Your task to perform on an android device: Search for pizza restaurants on Maps Image 0: 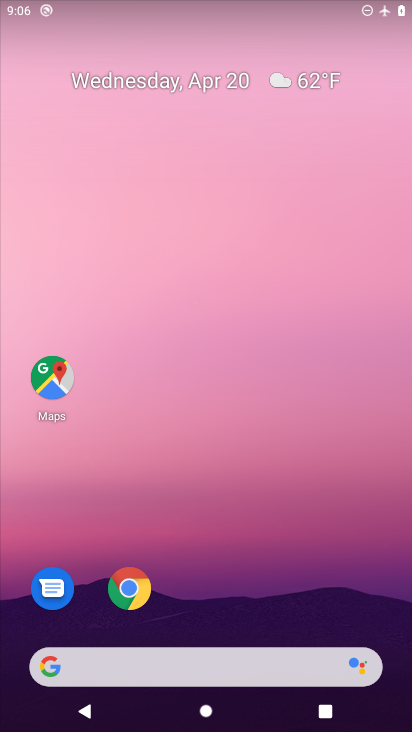
Step 0: drag from (207, 563) to (210, 99)
Your task to perform on an android device: Search for pizza restaurants on Maps Image 1: 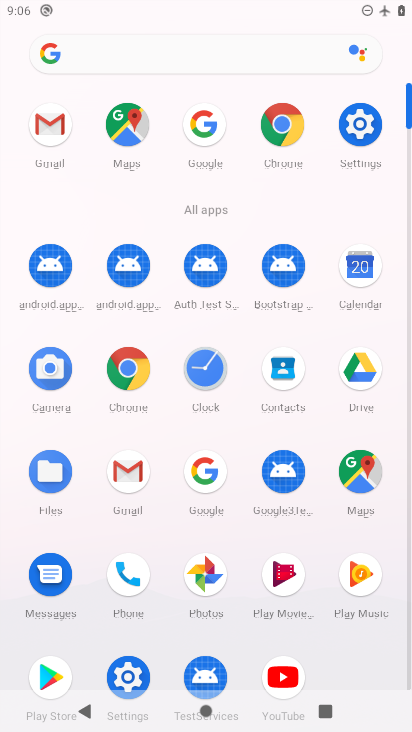
Step 1: click (363, 468)
Your task to perform on an android device: Search for pizza restaurants on Maps Image 2: 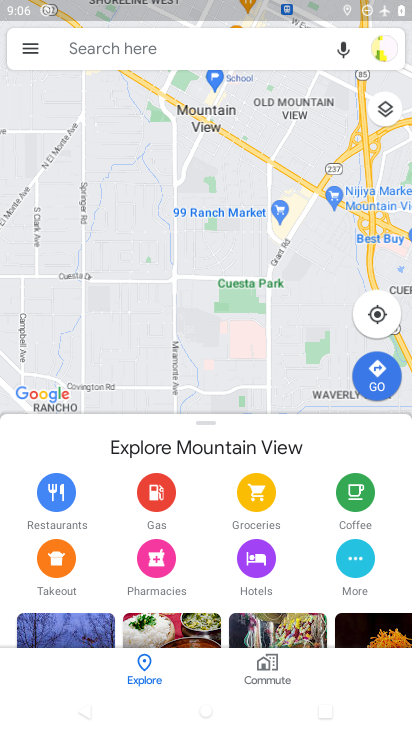
Step 2: click (100, 38)
Your task to perform on an android device: Search for pizza restaurants on Maps Image 3: 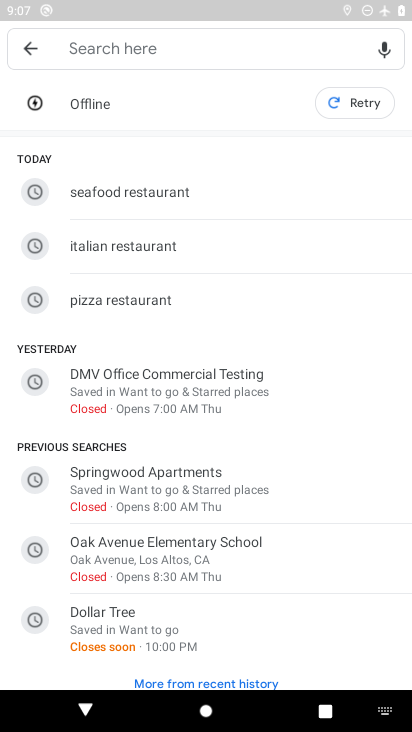
Step 3: click (174, 302)
Your task to perform on an android device: Search for pizza restaurants on Maps Image 4: 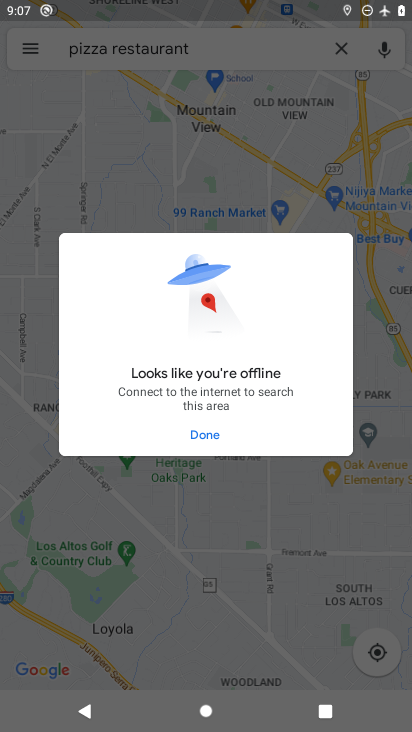
Step 4: click (205, 430)
Your task to perform on an android device: Search for pizza restaurants on Maps Image 5: 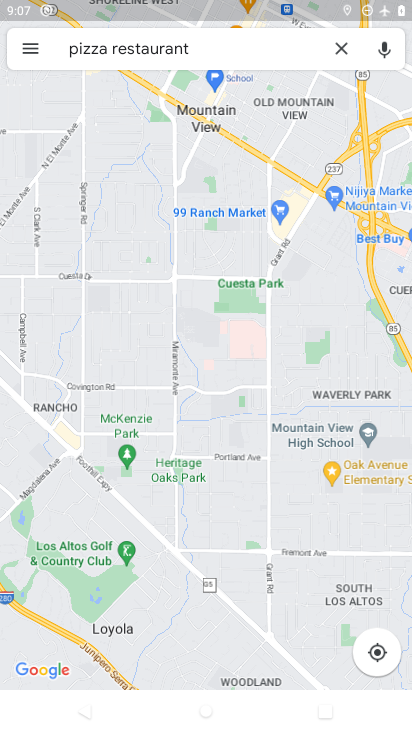
Step 5: task complete